Your task to perform on an android device: show emergency info Image 0: 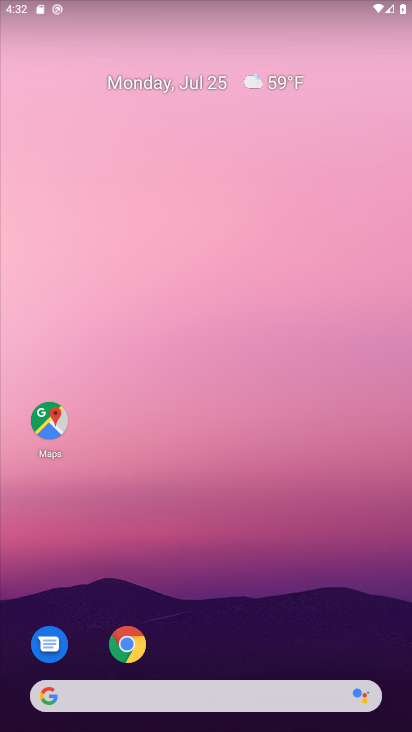
Step 0: drag from (187, 672) to (225, 99)
Your task to perform on an android device: show emergency info Image 1: 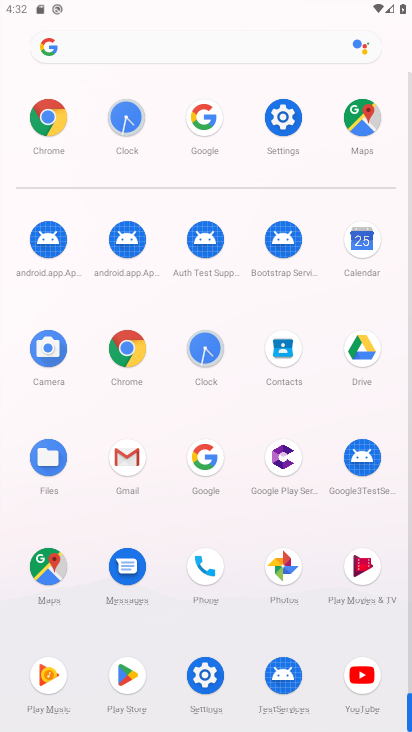
Step 1: click (281, 116)
Your task to perform on an android device: show emergency info Image 2: 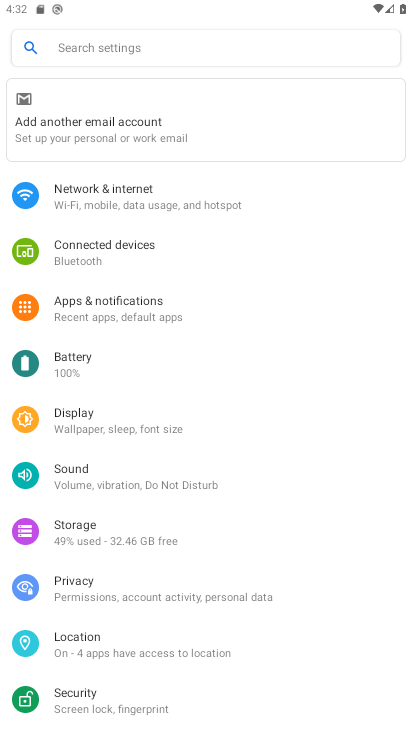
Step 2: drag from (292, 708) to (157, 72)
Your task to perform on an android device: show emergency info Image 3: 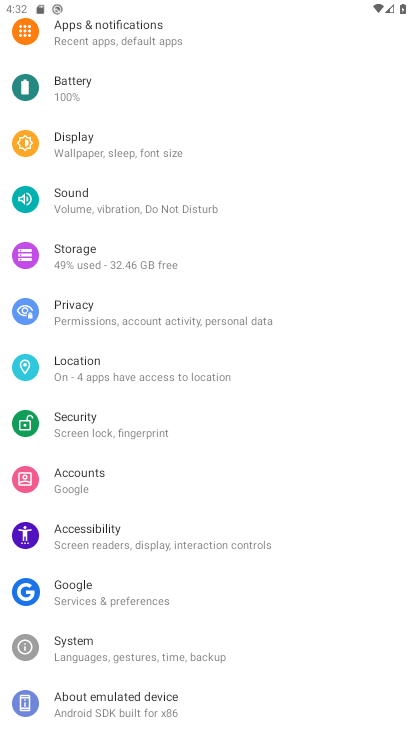
Step 3: click (155, 701)
Your task to perform on an android device: show emergency info Image 4: 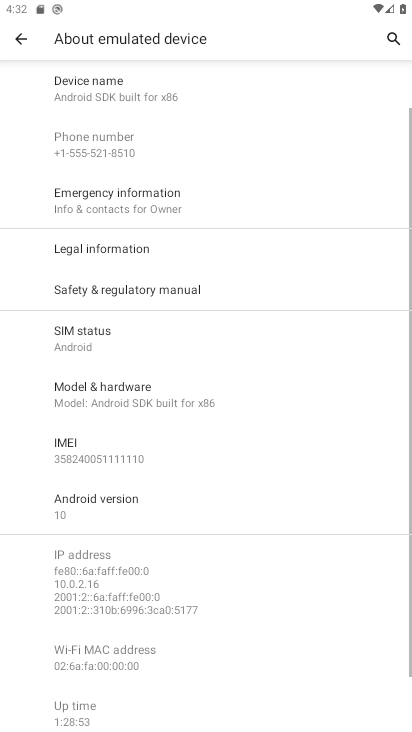
Step 4: click (86, 197)
Your task to perform on an android device: show emergency info Image 5: 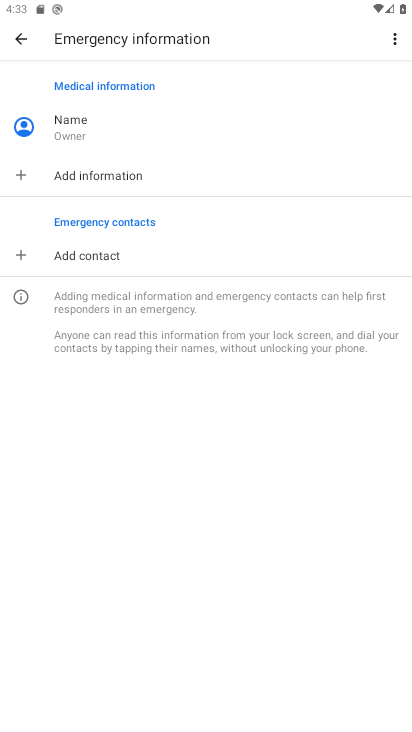
Step 5: task complete